Your task to perform on an android device: Open Google Chrome Image 0: 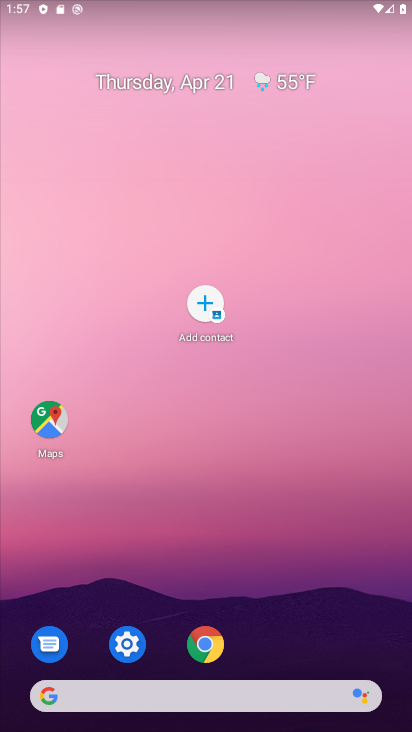
Step 0: click (237, 293)
Your task to perform on an android device: Open Google Chrome Image 1: 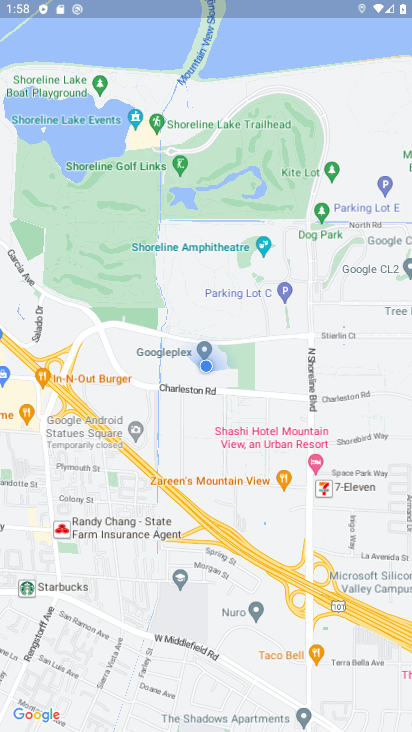
Step 1: drag from (138, 653) to (124, 212)
Your task to perform on an android device: Open Google Chrome Image 2: 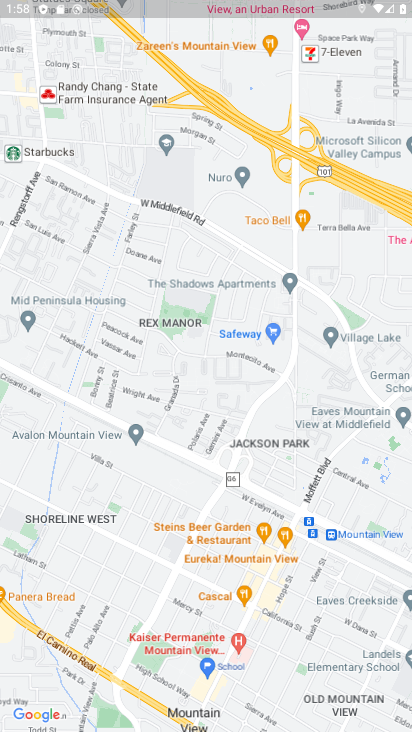
Step 2: press home button
Your task to perform on an android device: Open Google Chrome Image 3: 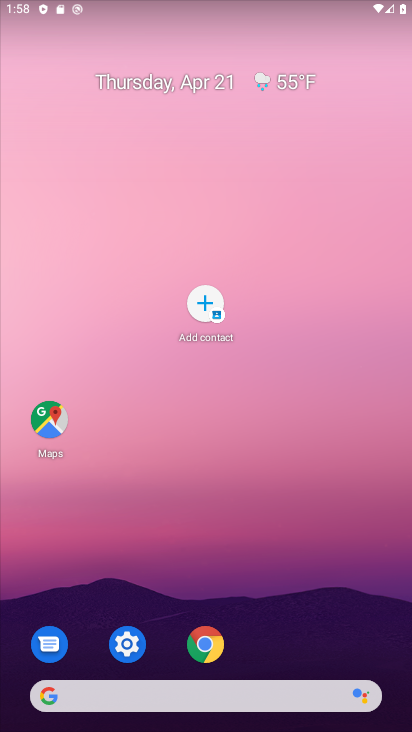
Step 3: drag from (271, 704) to (91, 0)
Your task to perform on an android device: Open Google Chrome Image 4: 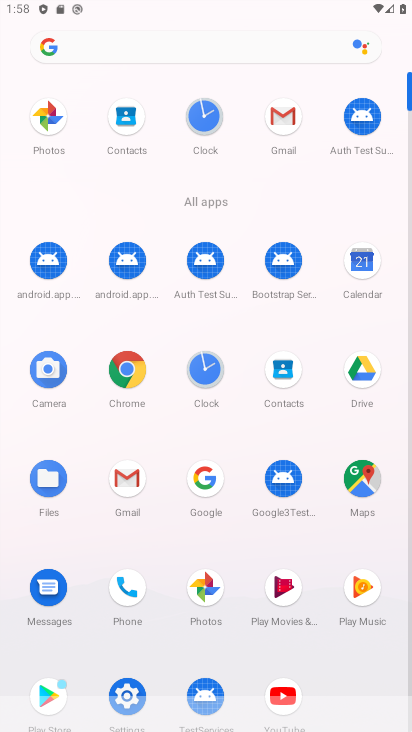
Step 4: click (198, 490)
Your task to perform on an android device: Open Google Chrome Image 5: 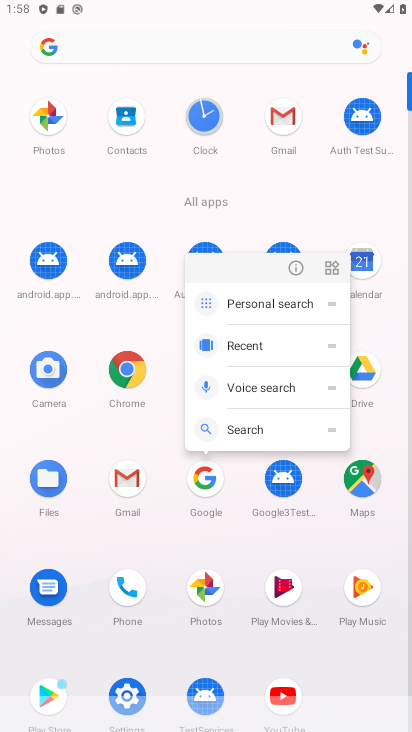
Step 5: click (198, 468)
Your task to perform on an android device: Open Google Chrome Image 6: 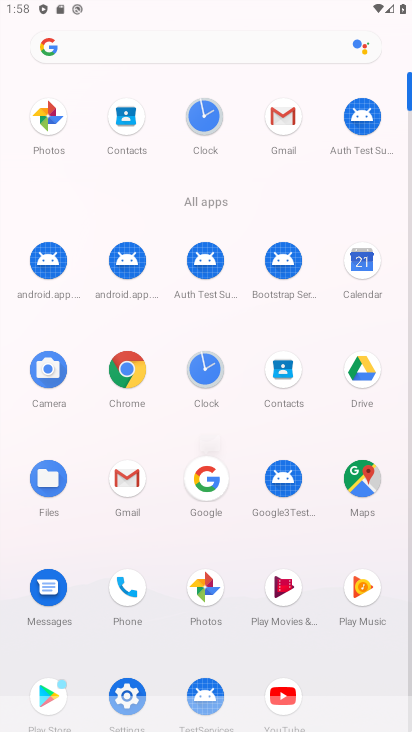
Step 6: click (198, 468)
Your task to perform on an android device: Open Google Chrome Image 7: 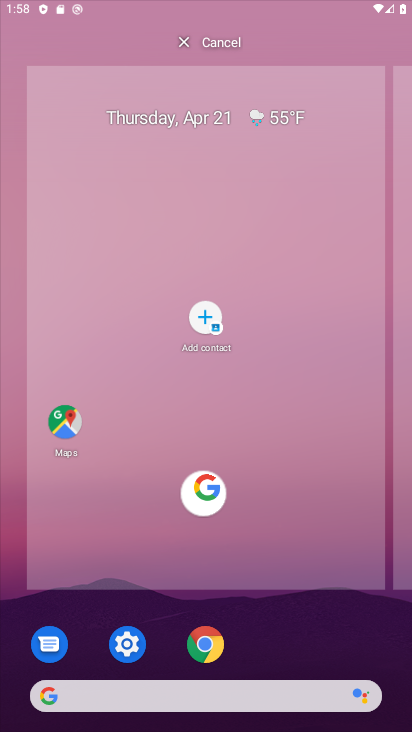
Step 7: click (194, 484)
Your task to perform on an android device: Open Google Chrome Image 8: 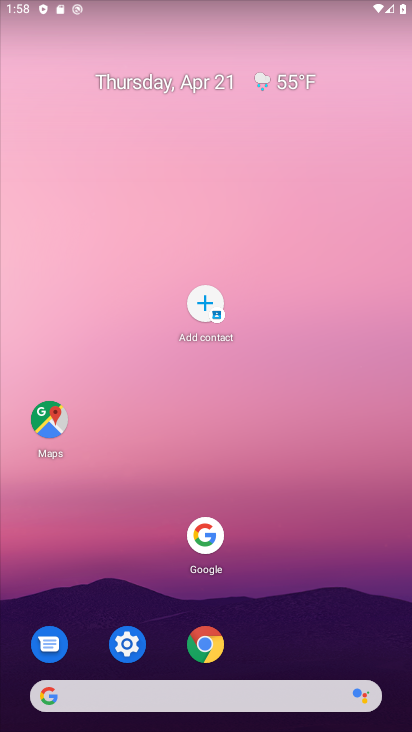
Step 8: click (199, 548)
Your task to perform on an android device: Open Google Chrome Image 9: 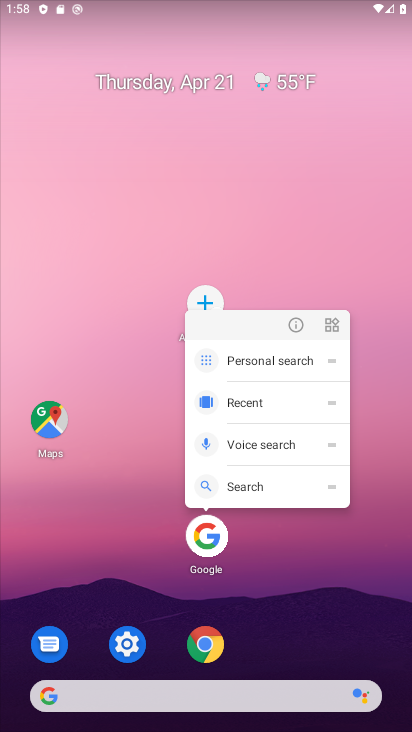
Step 9: click (199, 548)
Your task to perform on an android device: Open Google Chrome Image 10: 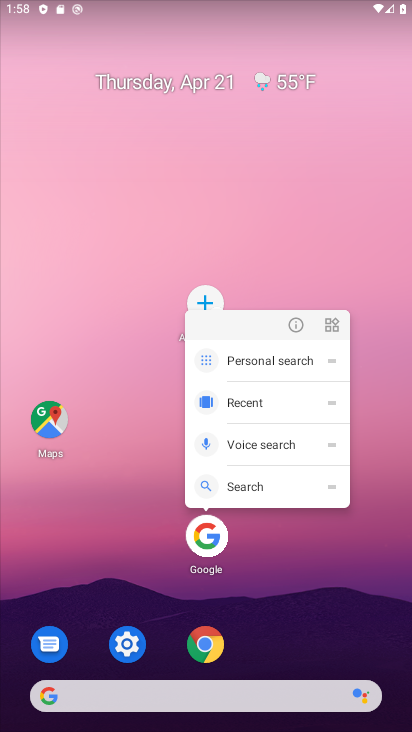
Step 10: click (200, 530)
Your task to perform on an android device: Open Google Chrome Image 11: 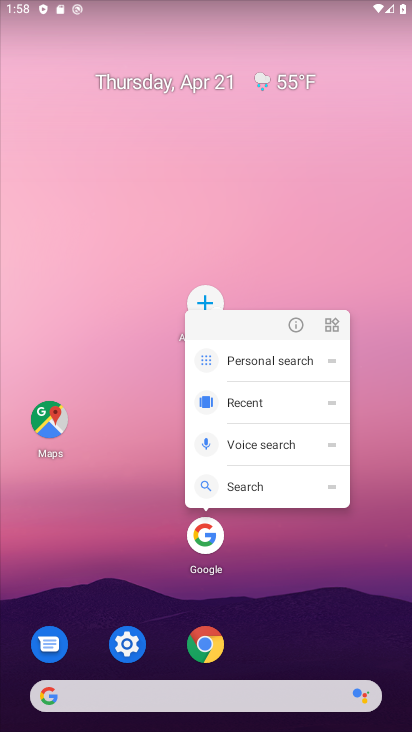
Step 11: click (204, 530)
Your task to perform on an android device: Open Google Chrome Image 12: 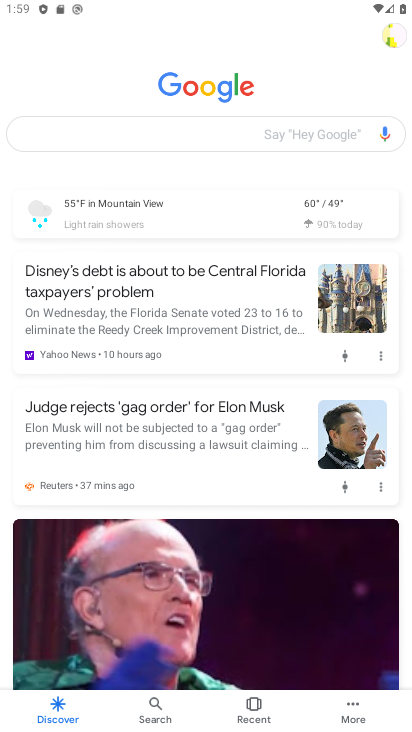
Step 12: drag from (168, 441) to (131, 164)
Your task to perform on an android device: Open Google Chrome Image 13: 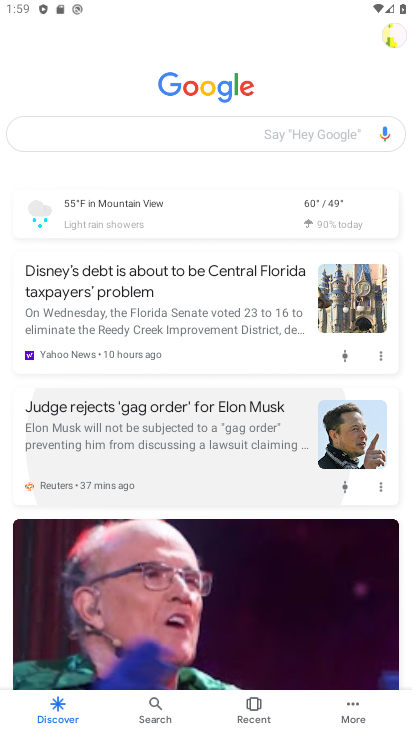
Step 13: drag from (125, 459) to (110, 248)
Your task to perform on an android device: Open Google Chrome Image 14: 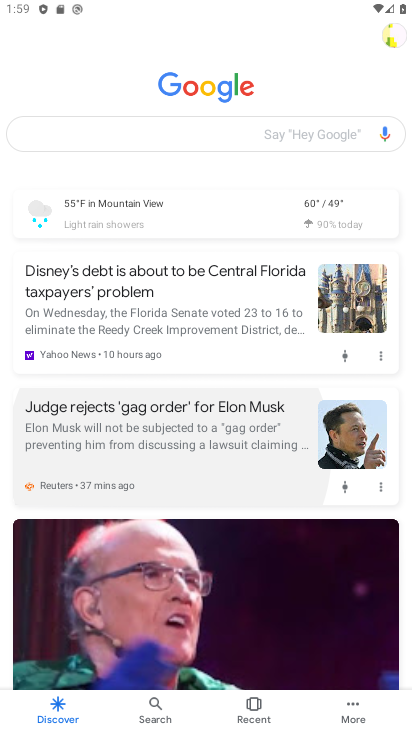
Step 14: drag from (139, 419) to (139, 334)
Your task to perform on an android device: Open Google Chrome Image 15: 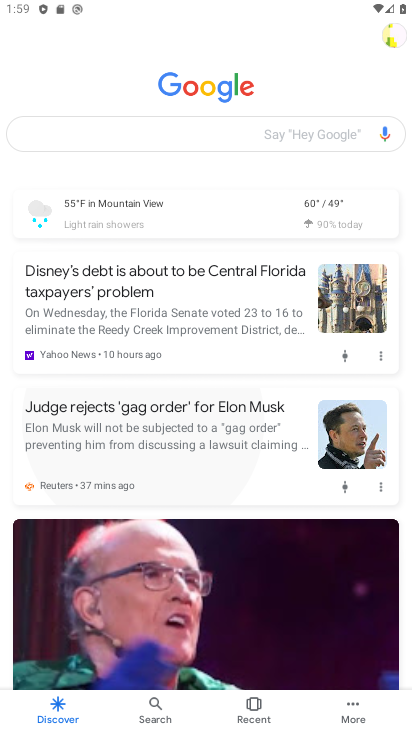
Step 15: drag from (167, 552) to (180, 306)
Your task to perform on an android device: Open Google Chrome Image 16: 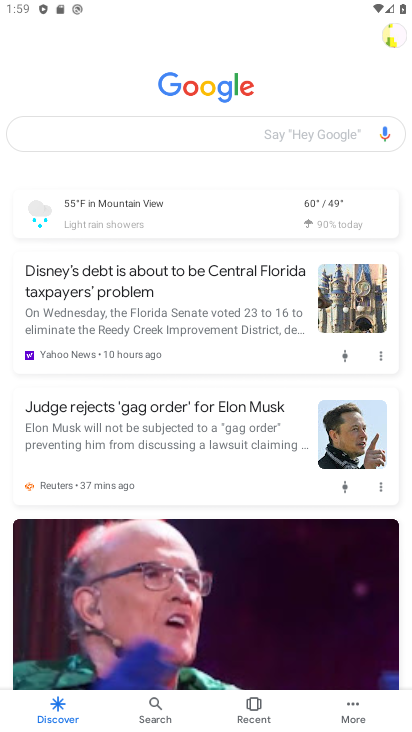
Step 16: drag from (223, 535) to (216, 302)
Your task to perform on an android device: Open Google Chrome Image 17: 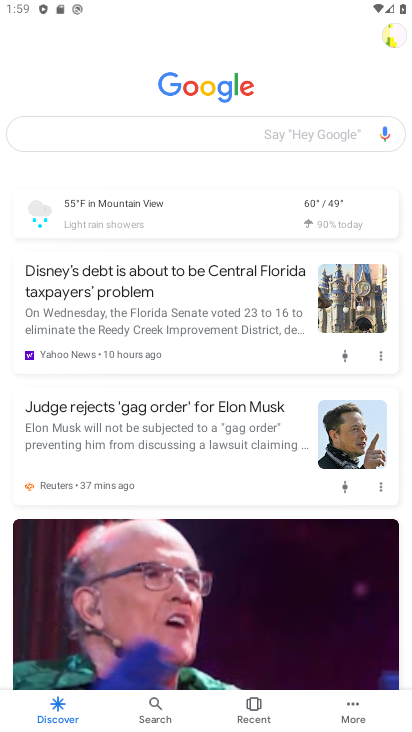
Step 17: click (194, 232)
Your task to perform on an android device: Open Google Chrome Image 18: 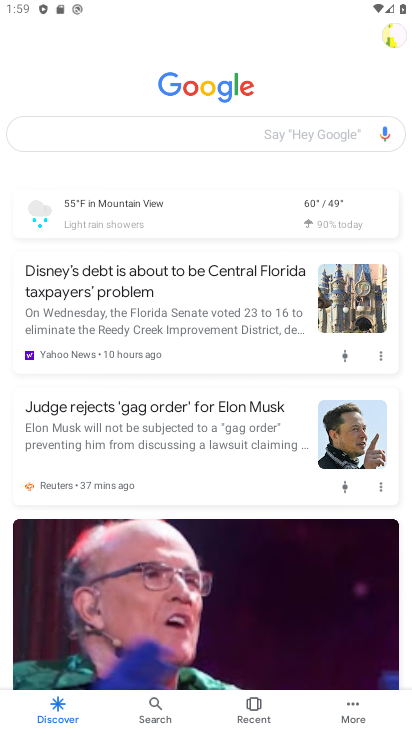
Step 18: task complete